Your task to perform on an android device: empty trash in google photos Image 0: 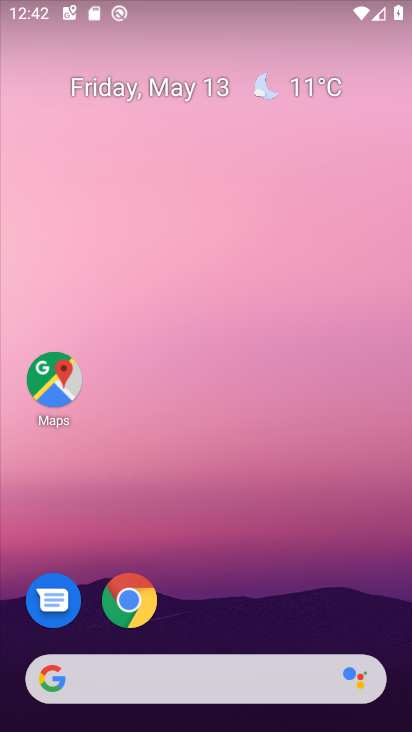
Step 0: drag from (230, 282) to (246, 10)
Your task to perform on an android device: empty trash in google photos Image 1: 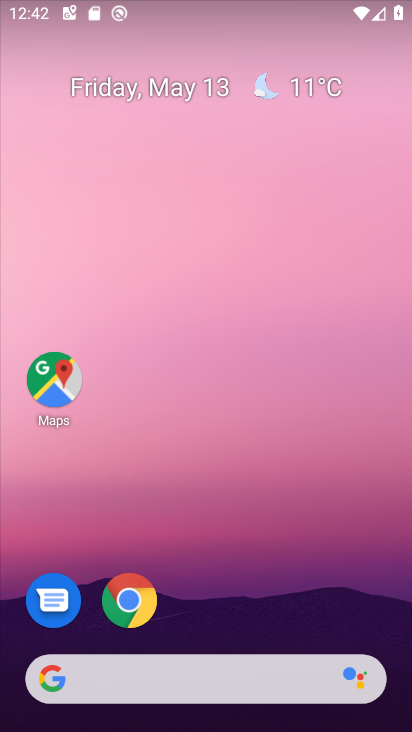
Step 1: drag from (195, 636) to (218, 20)
Your task to perform on an android device: empty trash in google photos Image 2: 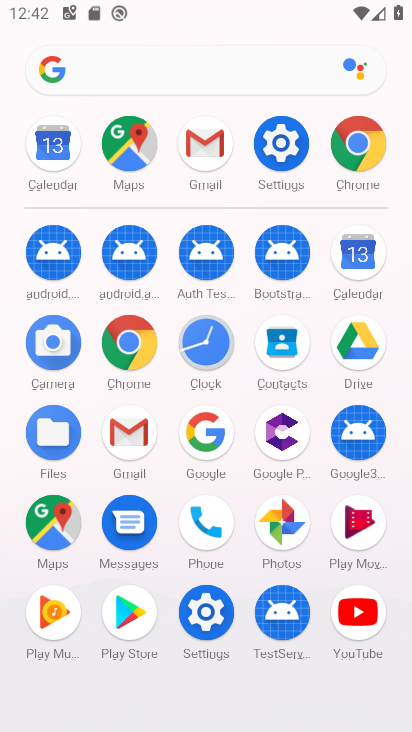
Step 2: click (277, 533)
Your task to perform on an android device: empty trash in google photos Image 3: 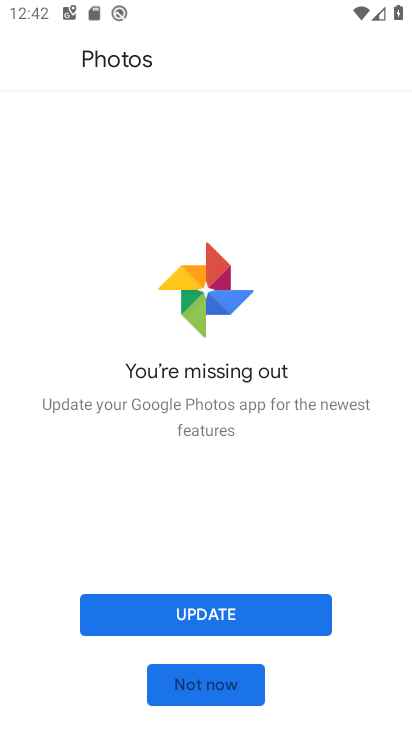
Step 3: click (192, 680)
Your task to perform on an android device: empty trash in google photos Image 4: 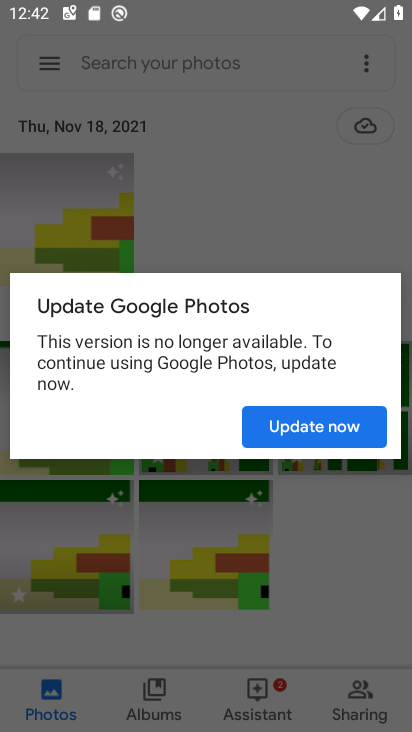
Step 4: click (313, 427)
Your task to perform on an android device: empty trash in google photos Image 5: 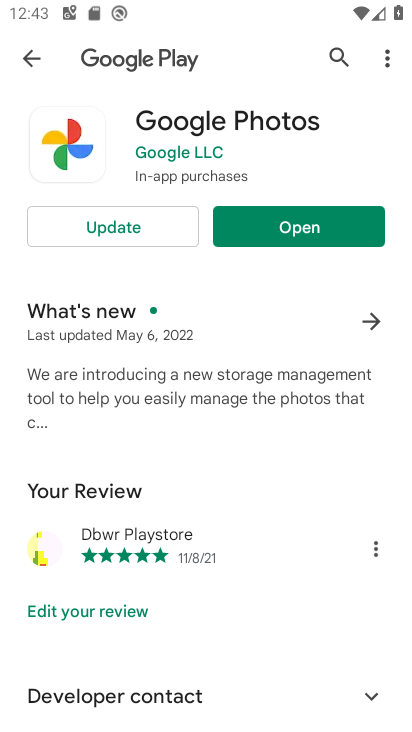
Step 5: click (137, 221)
Your task to perform on an android device: empty trash in google photos Image 6: 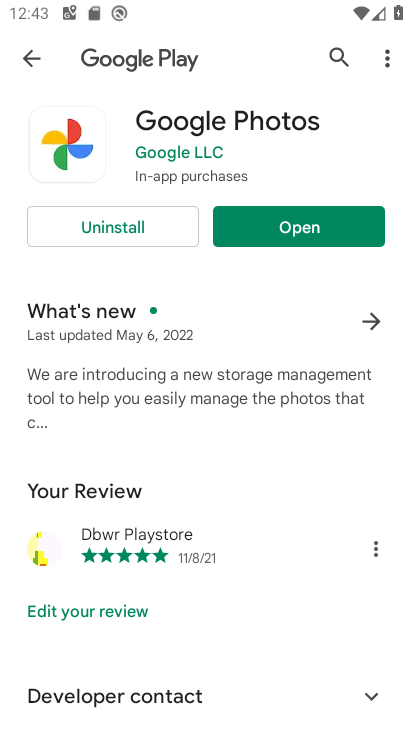
Step 6: click (247, 234)
Your task to perform on an android device: empty trash in google photos Image 7: 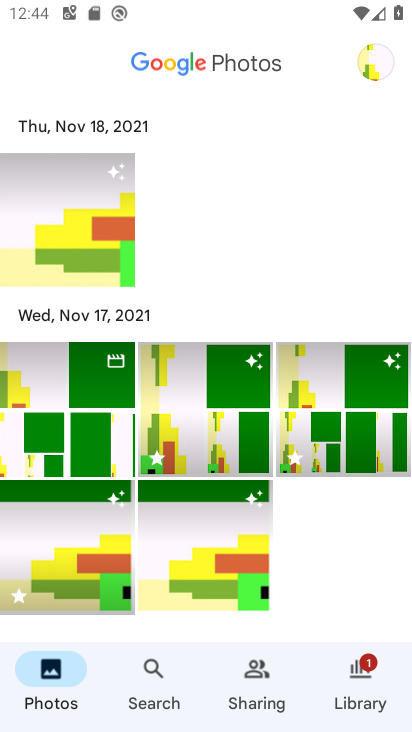
Step 7: click (19, 71)
Your task to perform on an android device: empty trash in google photos Image 8: 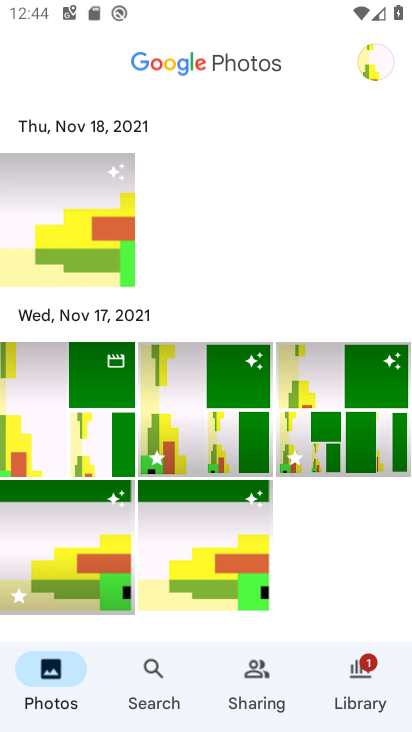
Step 8: task complete